Your task to perform on an android device: turn on location history Image 0: 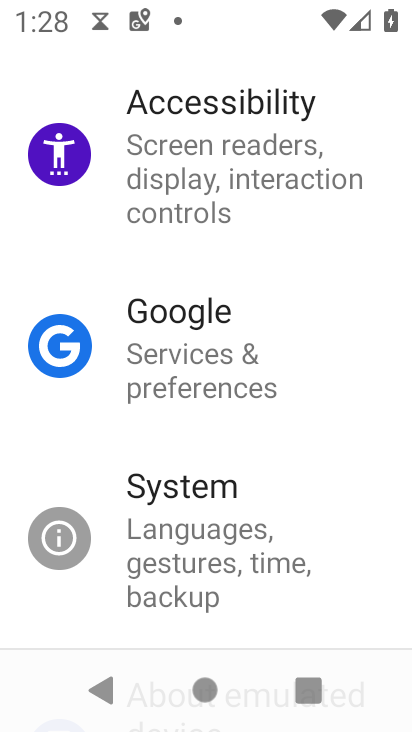
Step 0: press home button
Your task to perform on an android device: turn on location history Image 1: 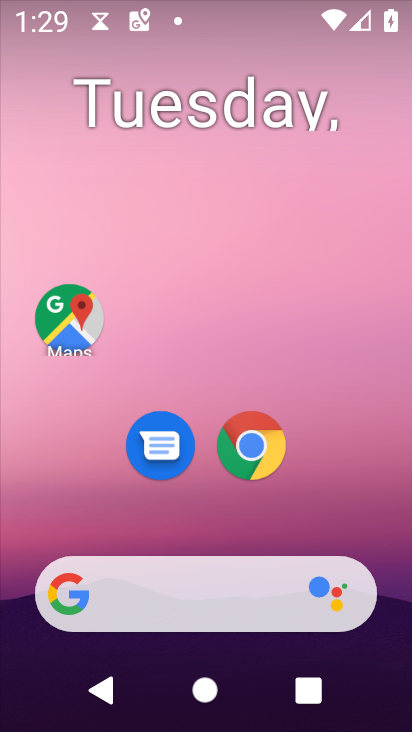
Step 1: drag from (237, 601) to (308, 61)
Your task to perform on an android device: turn on location history Image 2: 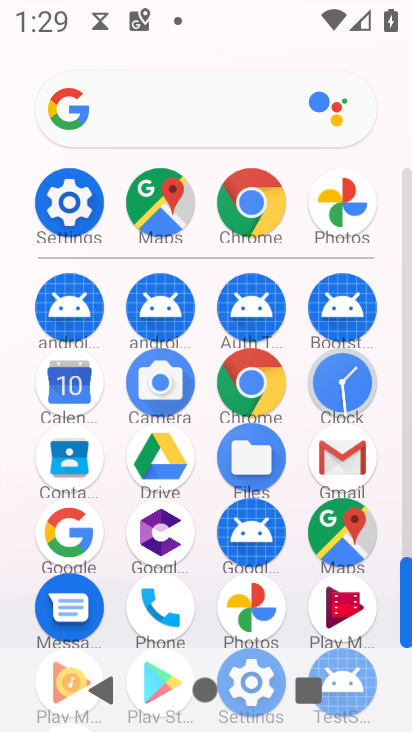
Step 2: click (69, 213)
Your task to perform on an android device: turn on location history Image 3: 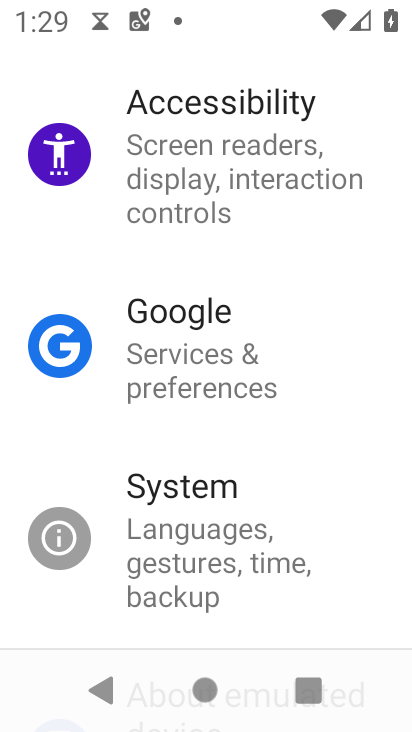
Step 3: drag from (276, 278) to (275, 671)
Your task to perform on an android device: turn on location history Image 4: 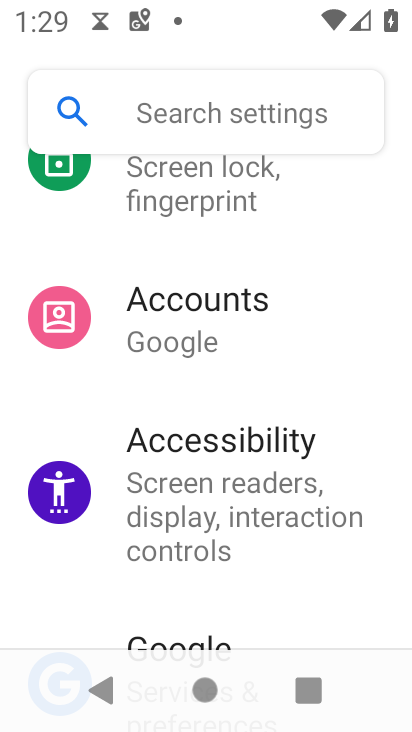
Step 4: drag from (257, 228) to (319, 633)
Your task to perform on an android device: turn on location history Image 5: 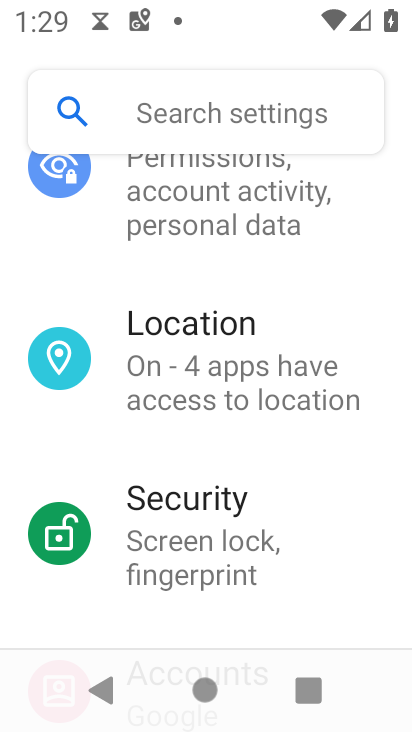
Step 5: click (264, 381)
Your task to perform on an android device: turn on location history Image 6: 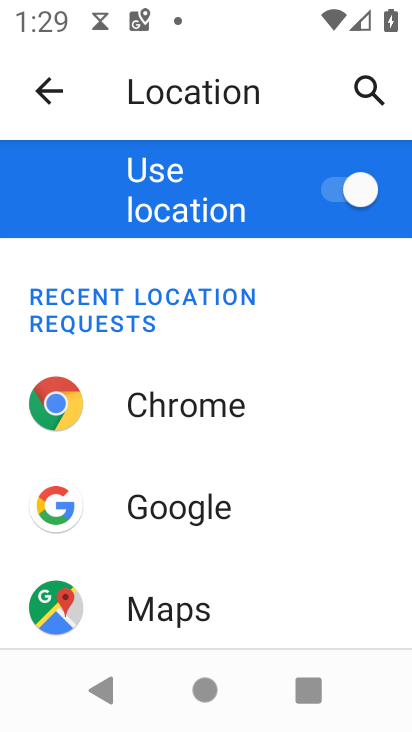
Step 6: drag from (265, 632) to (342, 84)
Your task to perform on an android device: turn on location history Image 7: 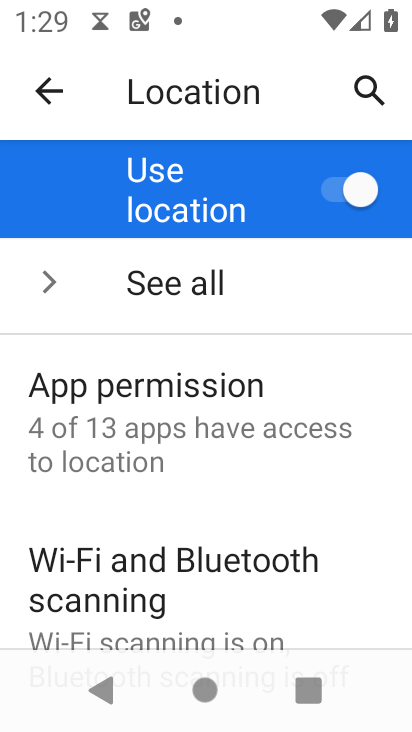
Step 7: drag from (263, 577) to (277, 280)
Your task to perform on an android device: turn on location history Image 8: 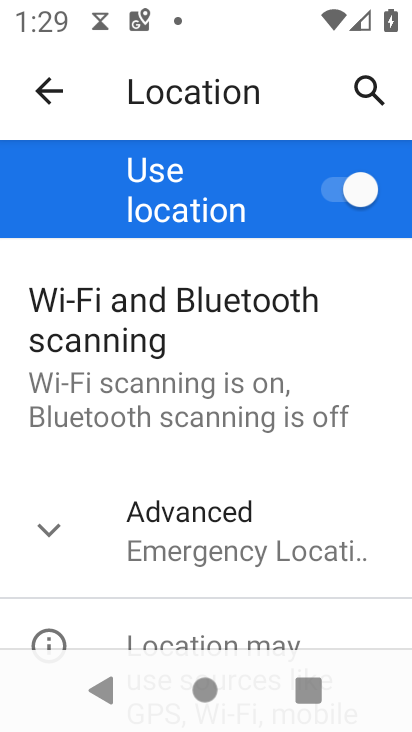
Step 8: drag from (261, 649) to (296, 309)
Your task to perform on an android device: turn on location history Image 9: 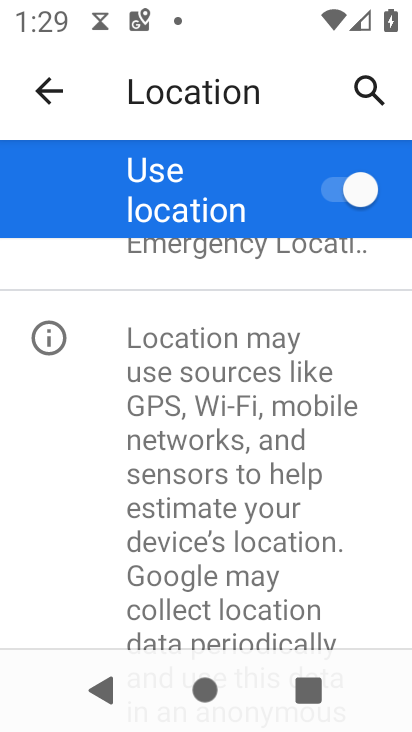
Step 9: drag from (274, 277) to (288, 483)
Your task to perform on an android device: turn on location history Image 10: 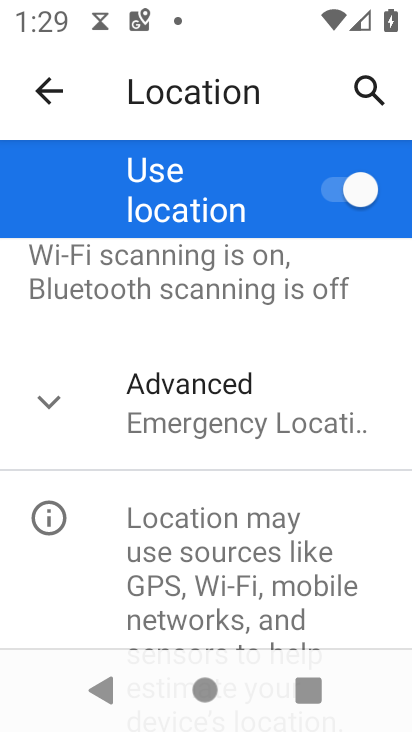
Step 10: click (268, 413)
Your task to perform on an android device: turn on location history Image 11: 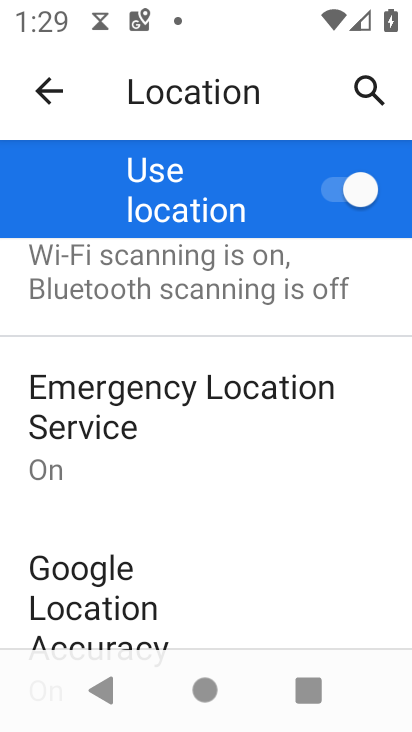
Step 11: drag from (283, 598) to (299, 222)
Your task to perform on an android device: turn on location history Image 12: 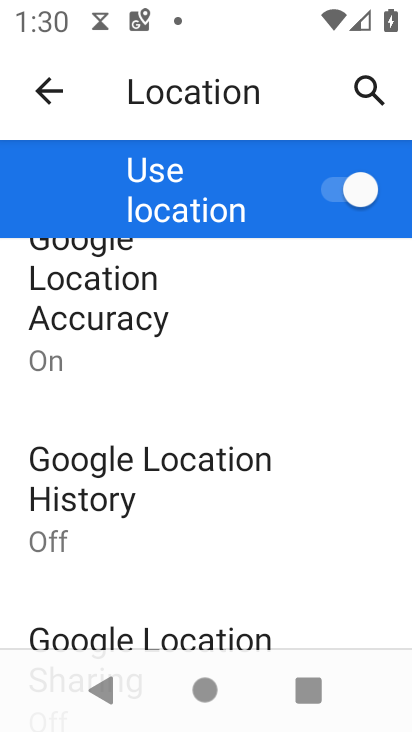
Step 12: click (190, 473)
Your task to perform on an android device: turn on location history Image 13: 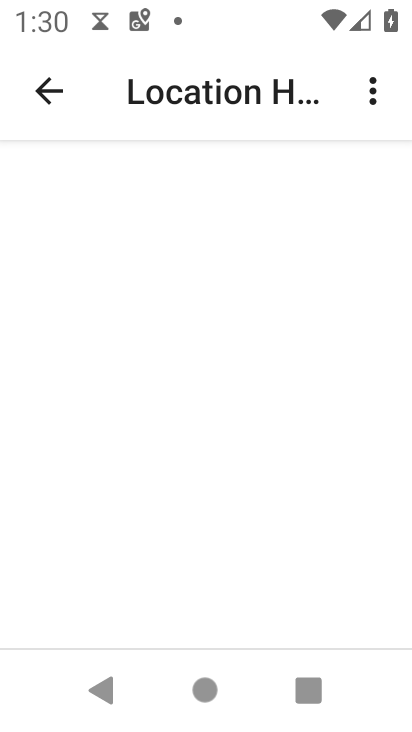
Step 13: task complete